Your task to perform on an android device: See recent photos Image 0: 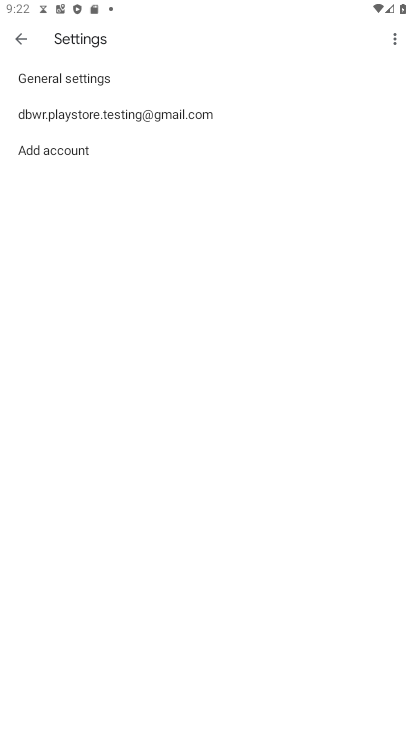
Step 0: press home button
Your task to perform on an android device: See recent photos Image 1: 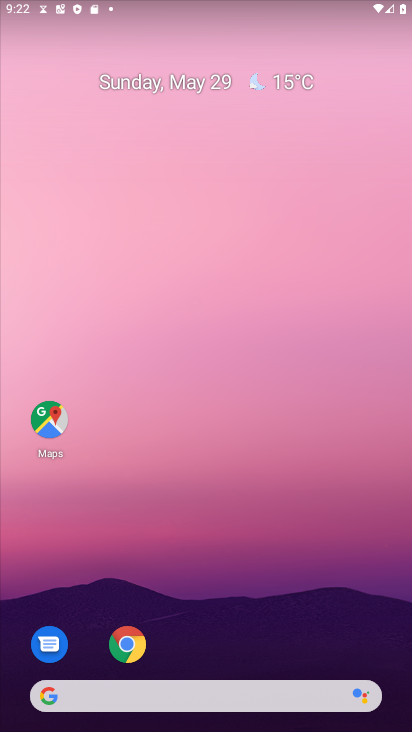
Step 1: drag from (235, 684) to (253, 148)
Your task to perform on an android device: See recent photos Image 2: 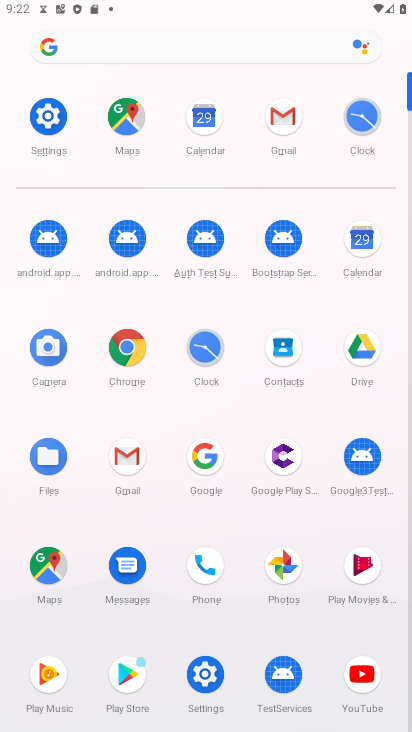
Step 2: click (285, 563)
Your task to perform on an android device: See recent photos Image 3: 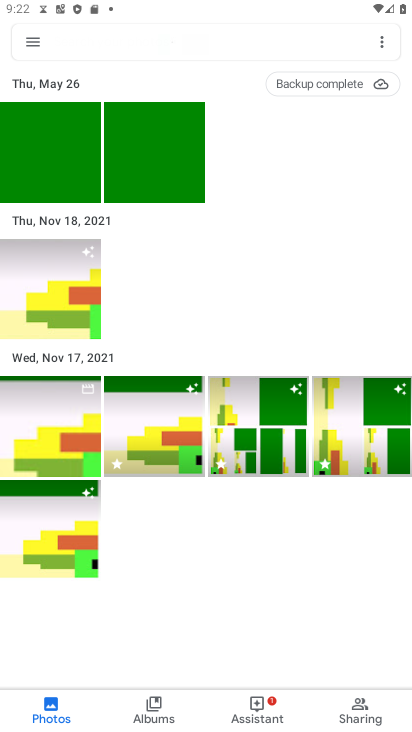
Step 3: task complete